Your task to perform on an android device: Open Google Maps Image 0: 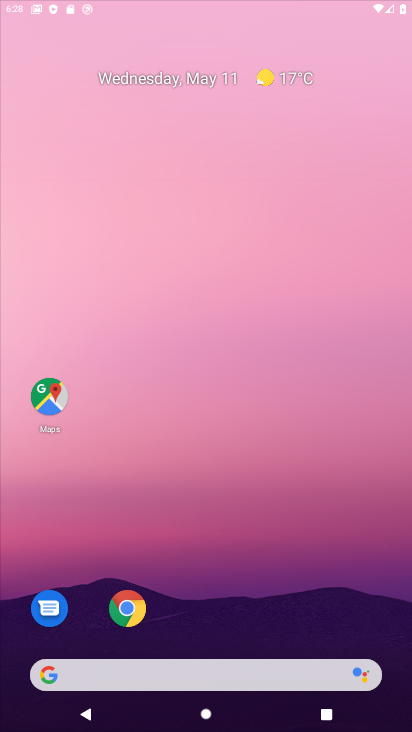
Step 0: drag from (257, 584) to (280, 90)
Your task to perform on an android device: Open Google Maps Image 1: 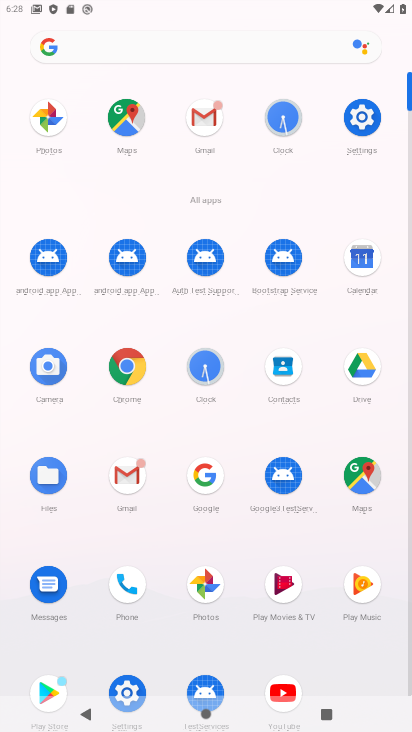
Step 1: click (339, 126)
Your task to perform on an android device: Open Google Maps Image 2: 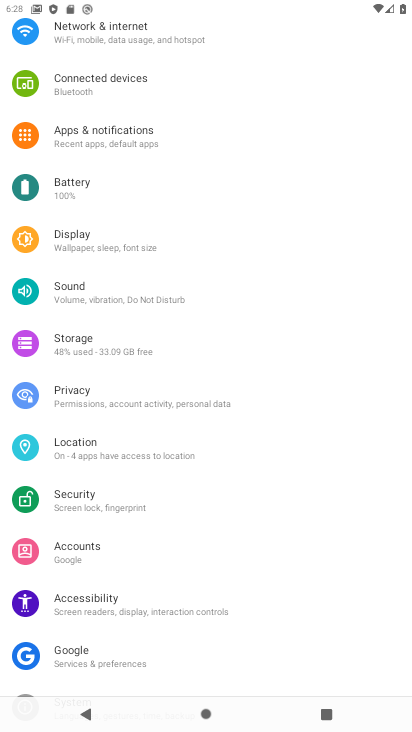
Step 2: press home button
Your task to perform on an android device: Open Google Maps Image 3: 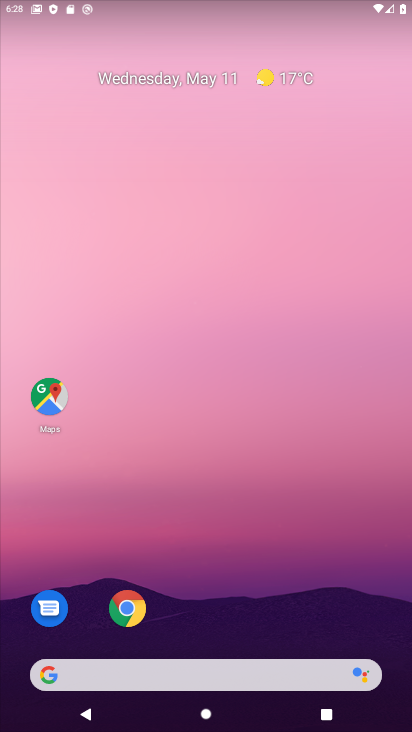
Step 3: drag from (253, 528) to (264, 405)
Your task to perform on an android device: Open Google Maps Image 4: 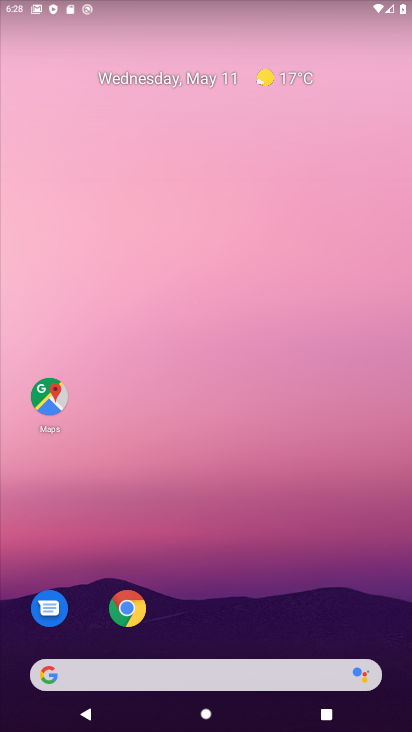
Step 4: click (34, 420)
Your task to perform on an android device: Open Google Maps Image 5: 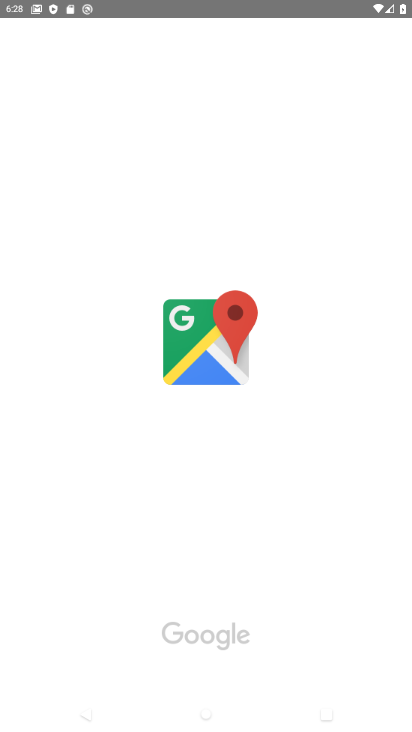
Step 5: task complete